Your task to perform on an android device: Do I have any events this weekend? Image 0: 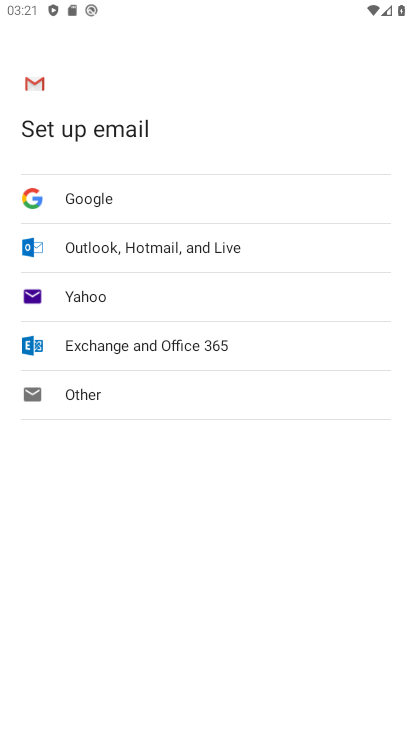
Step 0: press home button
Your task to perform on an android device: Do I have any events this weekend? Image 1: 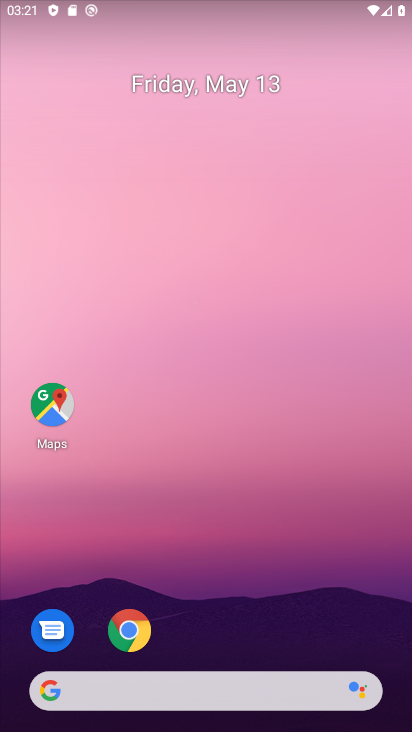
Step 1: drag from (211, 664) to (124, 56)
Your task to perform on an android device: Do I have any events this weekend? Image 2: 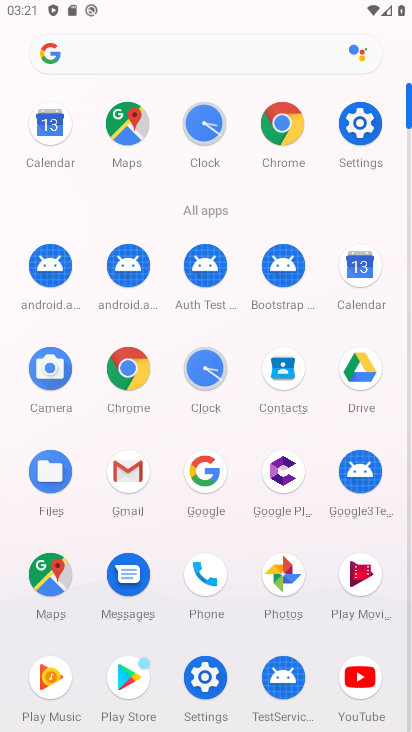
Step 2: click (356, 271)
Your task to perform on an android device: Do I have any events this weekend? Image 3: 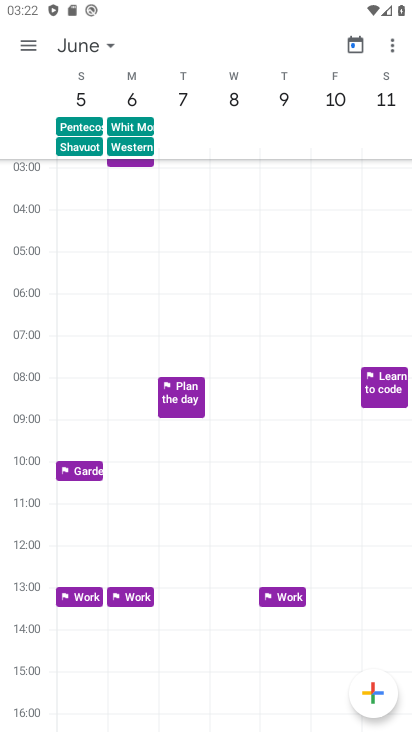
Step 3: click (347, 39)
Your task to perform on an android device: Do I have any events this weekend? Image 4: 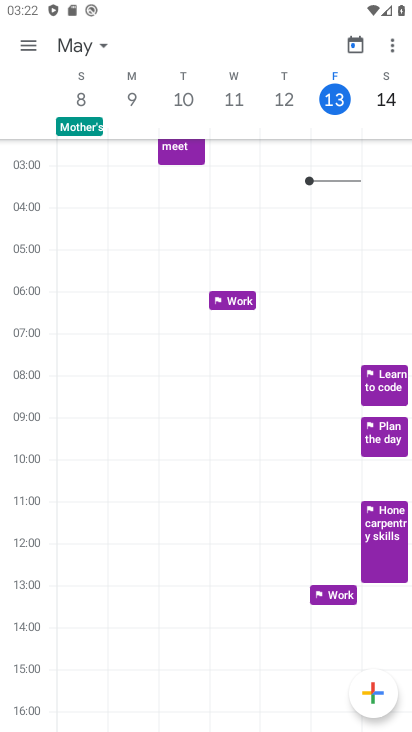
Step 4: task complete